Your task to perform on an android device: Open Youtube and go to the subscriptions tab Image 0: 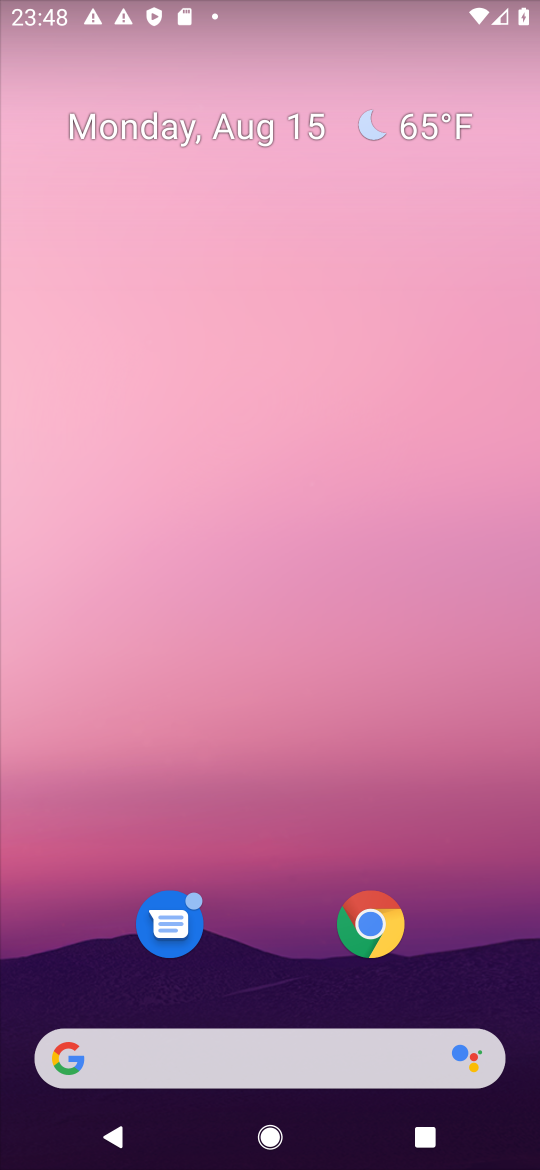
Step 0: click (463, 832)
Your task to perform on an android device: Open Youtube and go to the subscriptions tab Image 1: 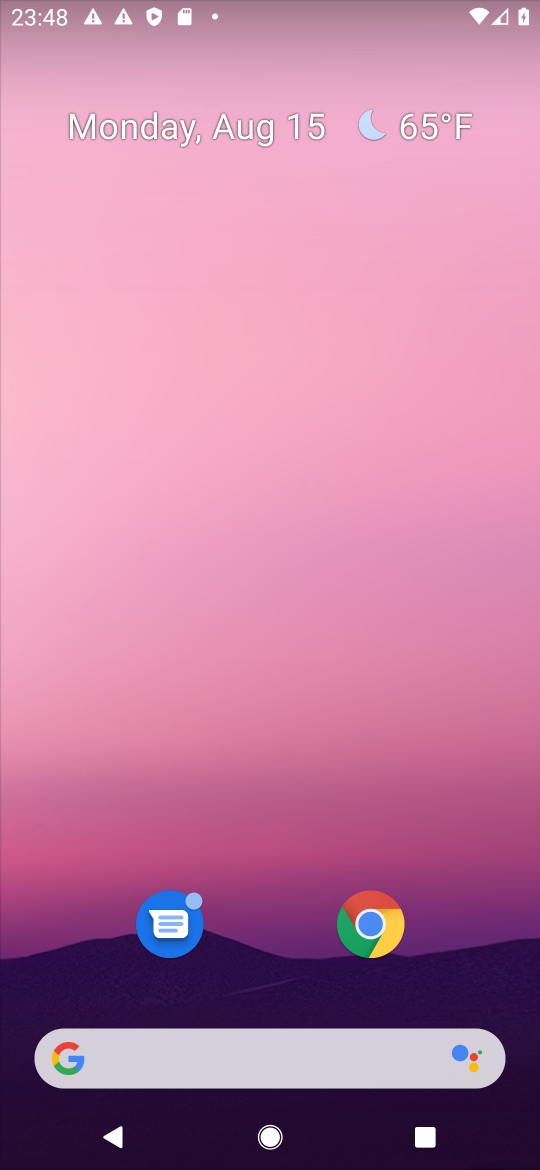
Step 1: drag from (463, 832) to (462, 24)
Your task to perform on an android device: Open Youtube and go to the subscriptions tab Image 2: 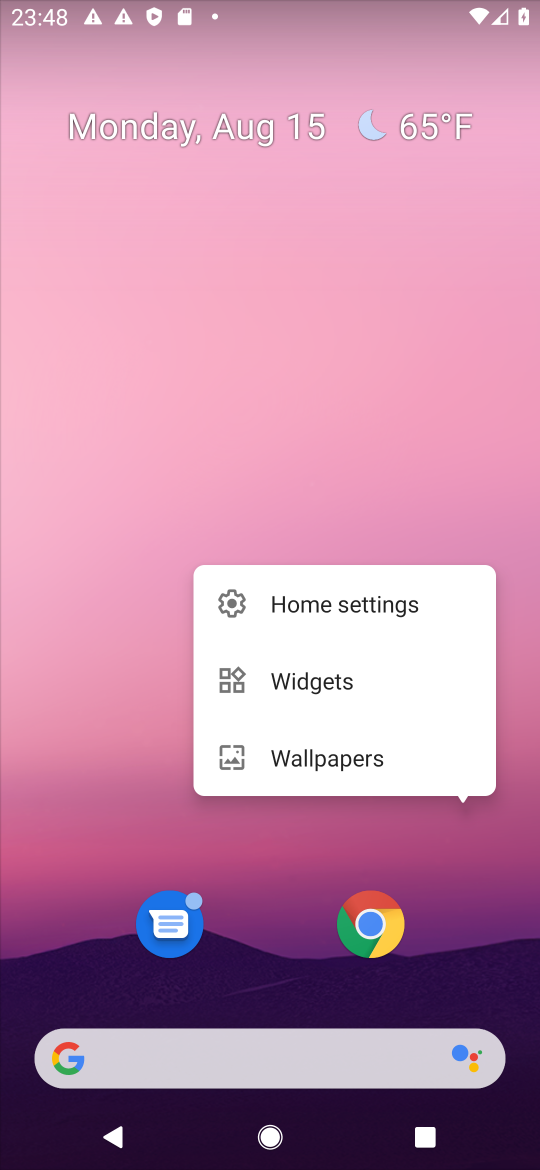
Step 2: click (335, 481)
Your task to perform on an android device: Open Youtube and go to the subscriptions tab Image 3: 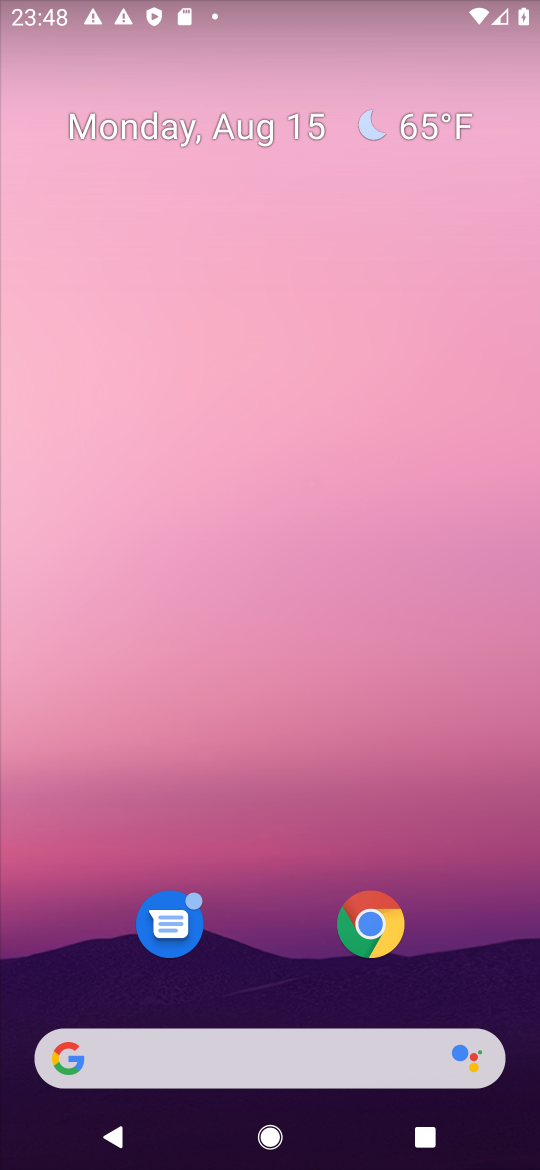
Step 3: drag from (308, 1012) to (496, 43)
Your task to perform on an android device: Open Youtube and go to the subscriptions tab Image 4: 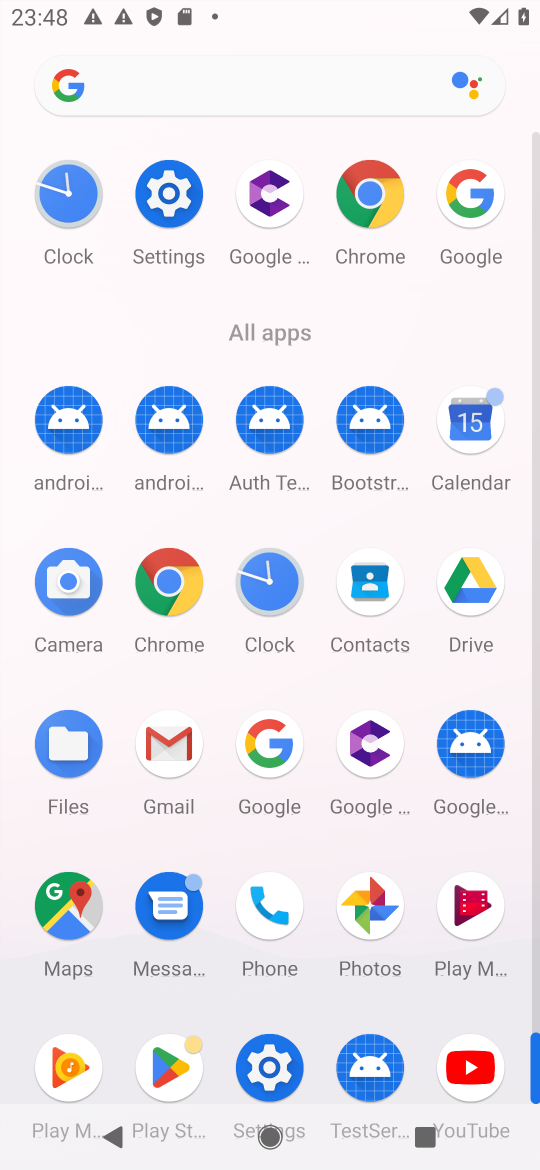
Step 4: click (474, 1050)
Your task to perform on an android device: Open Youtube and go to the subscriptions tab Image 5: 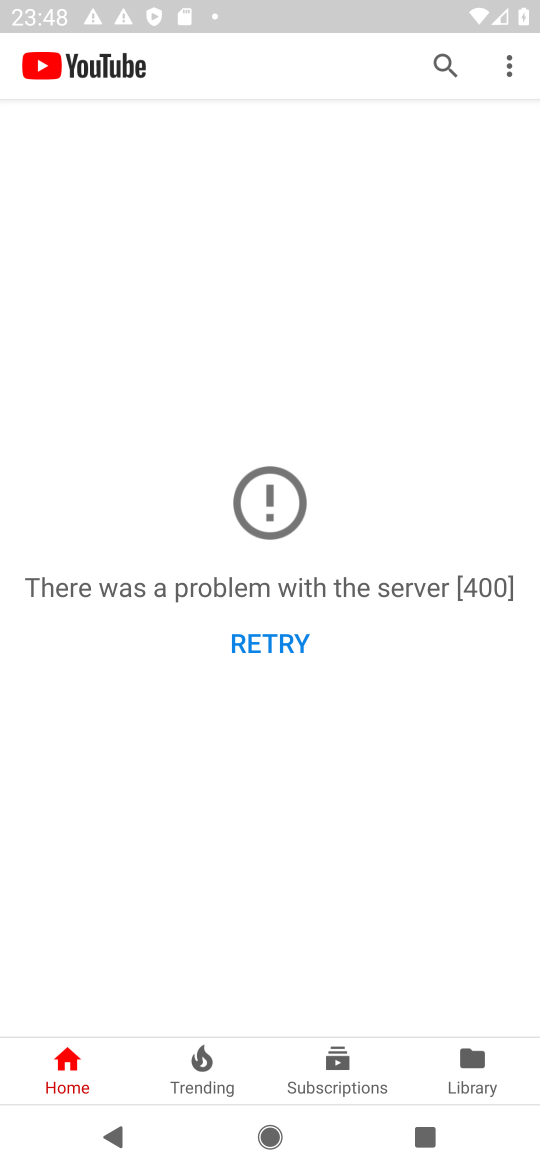
Step 5: click (349, 1071)
Your task to perform on an android device: Open Youtube and go to the subscriptions tab Image 6: 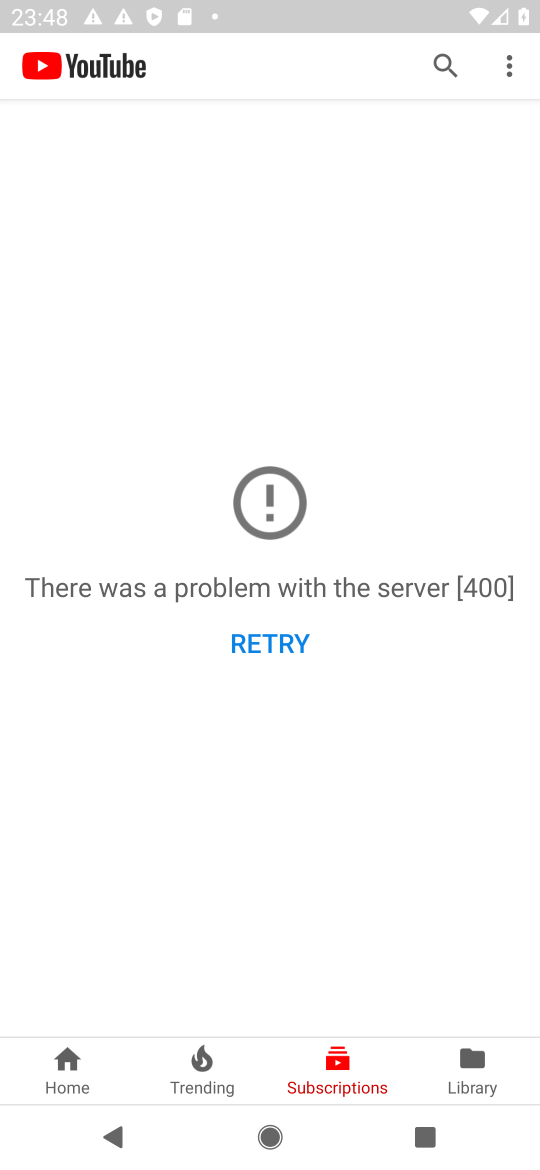
Step 6: task complete